Your task to perform on an android device: Search for dining sets on article.com Image 0: 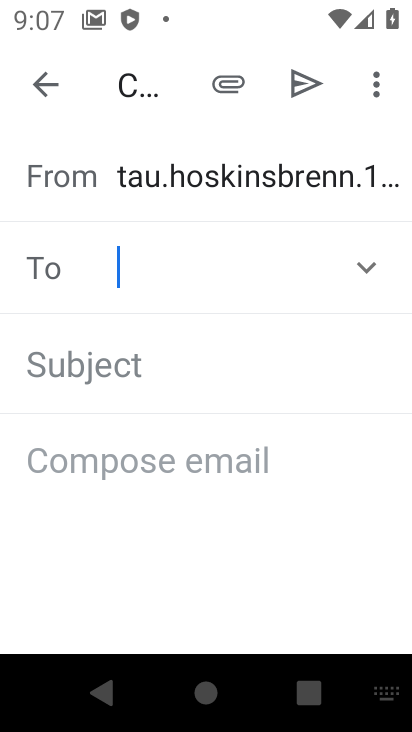
Step 0: press home button
Your task to perform on an android device: Search for dining sets on article.com Image 1: 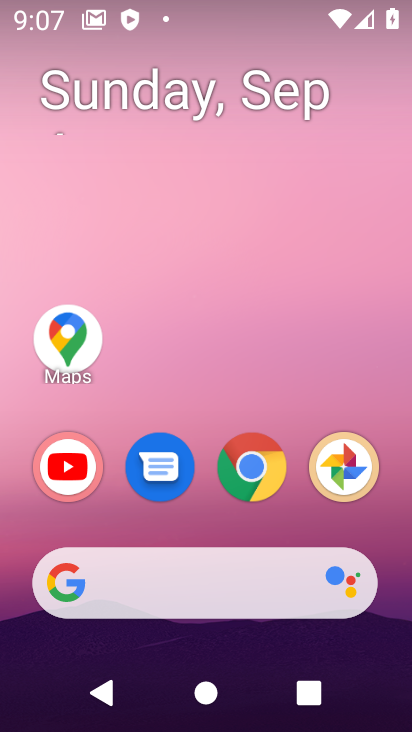
Step 1: click (258, 473)
Your task to perform on an android device: Search for dining sets on article.com Image 2: 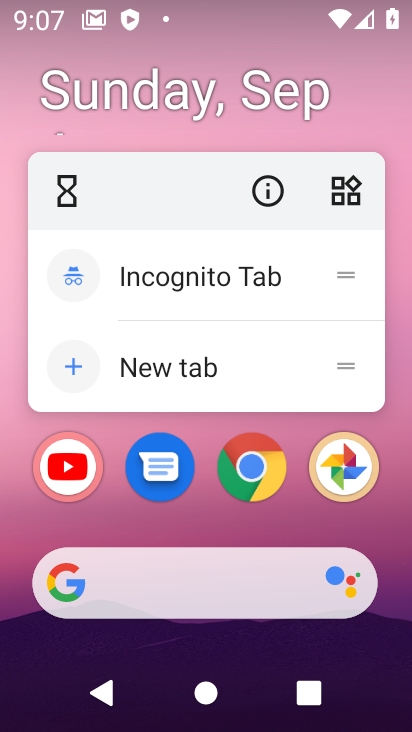
Step 2: click (248, 482)
Your task to perform on an android device: Search for dining sets on article.com Image 3: 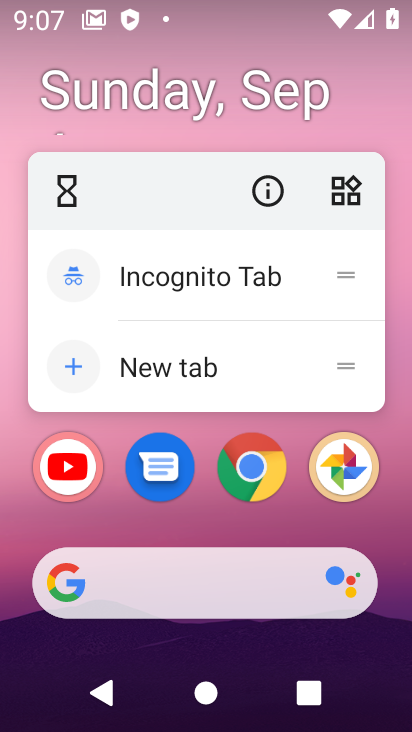
Step 3: click (242, 483)
Your task to perform on an android device: Search for dining sets on article.com Image 4: 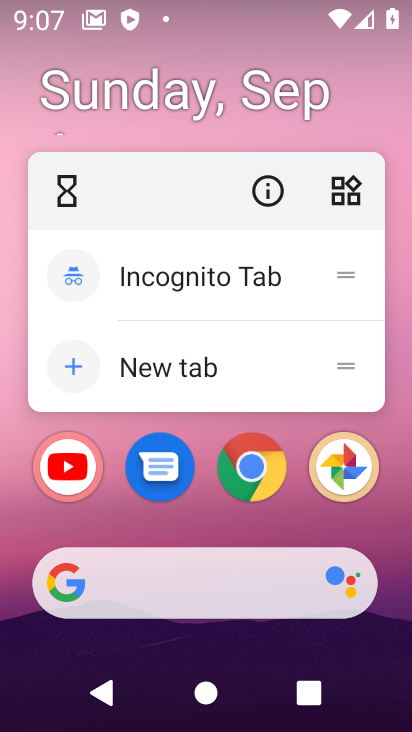
Step 4: click (248, 455)
Your task to perform on an android device: Search for dining sets on article.com Image 5: 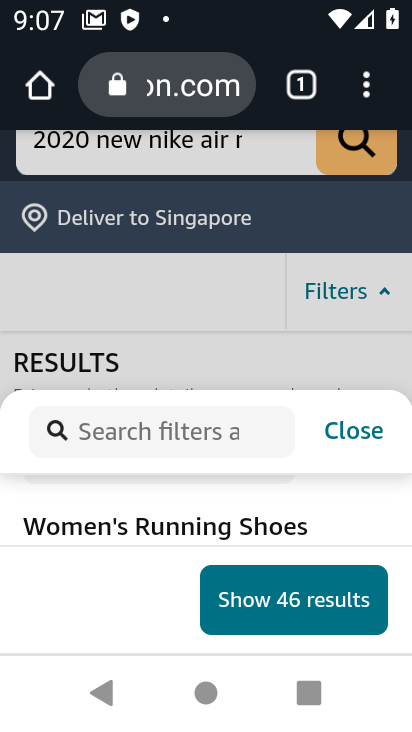
Step 5: click (160, 71)
Your task to perform on an android device: Search for dining sets on article.com Image 6: 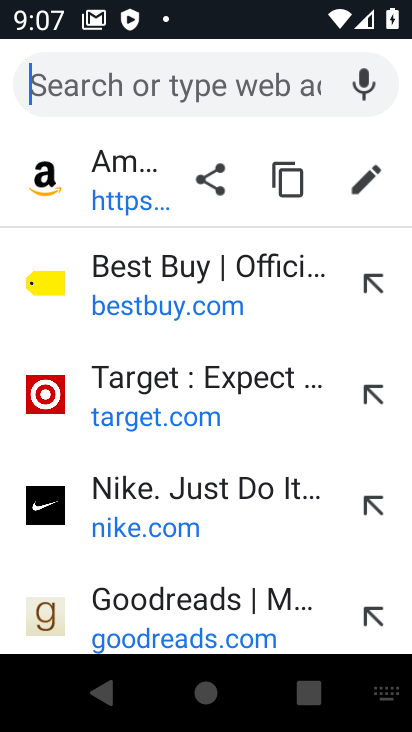
Step 6: type "article.com"
Your task to perform on an android device: Search for dining sets on article.com Image 7: 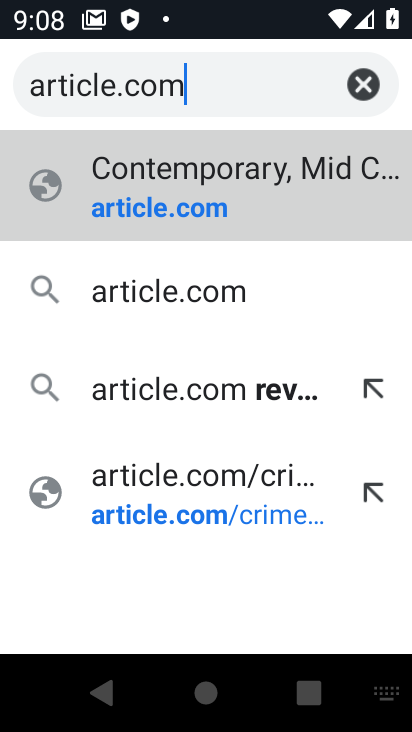
Step 7: click (200, 504)
Your task to perform on an android device: Search for dining sets on article.com Image 8: 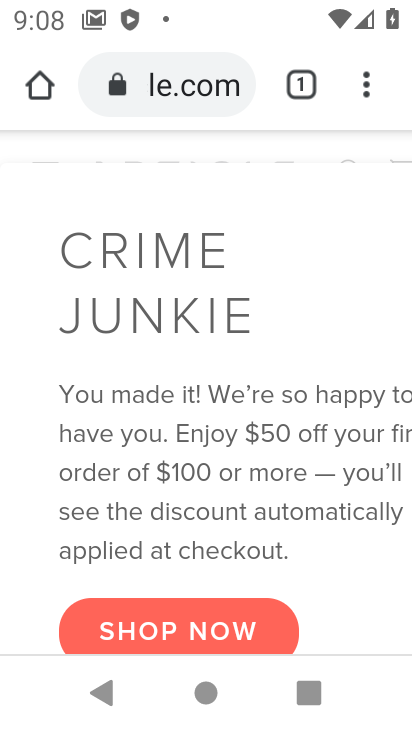
Step 8: drag from (365, 578) to (353, 170)
Your task to perform on an android device: Search for dining sets on article.com Image 9: 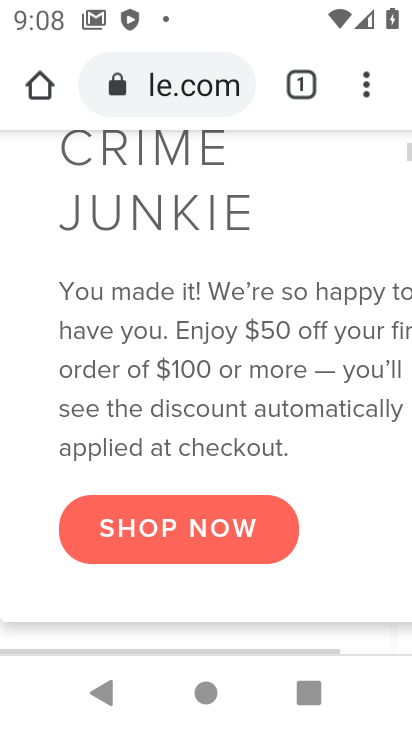
Step 9: drag from (342, 551) to (297, 290)
Your task to perform on an android device: Search for dining sets on article.com Image 10: 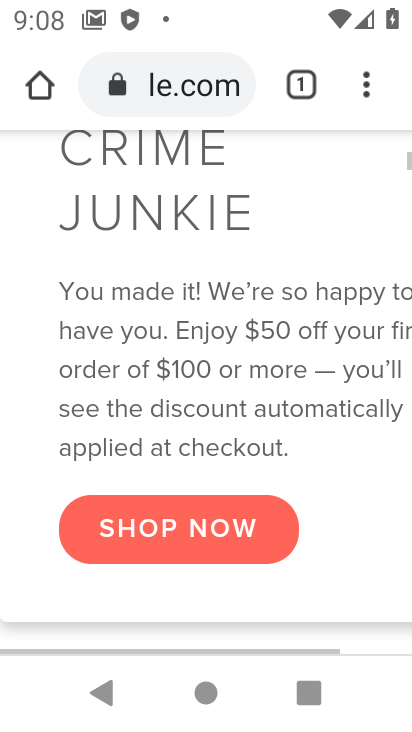
Step 10: click (200, 525)
Your task to perform on an android device: Search for dining sets on article.com Image 11: 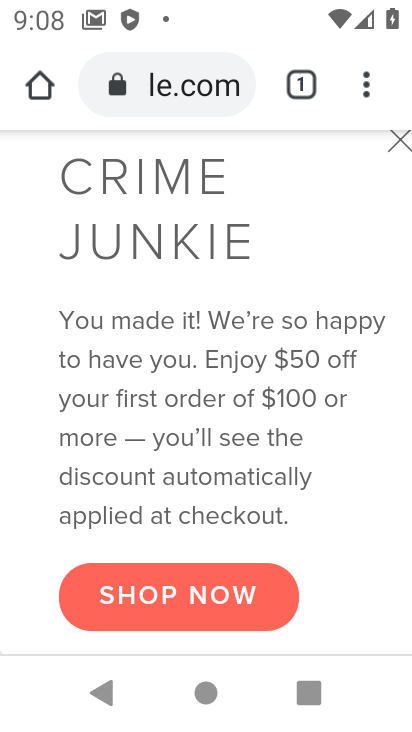
Step 11: drag from (373, 395) to (368, 144)
Your task to perform on an android device: Search for dining sets on article.com Image 12: 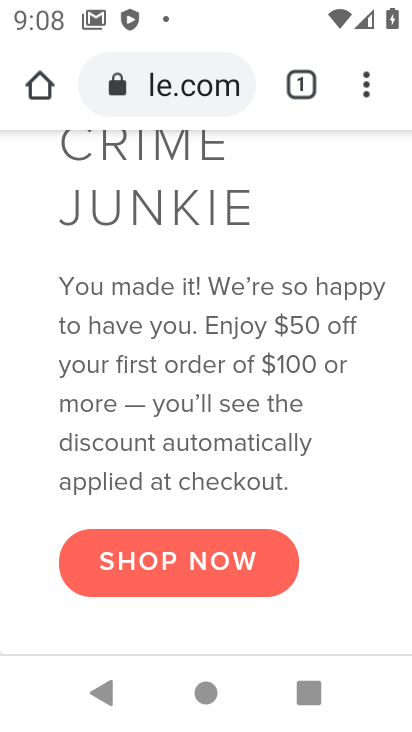
Step 12: drag from (333, 550) to (387, 103)
Your task to perform on an android device: Search for dining sets on article.com Image 13: 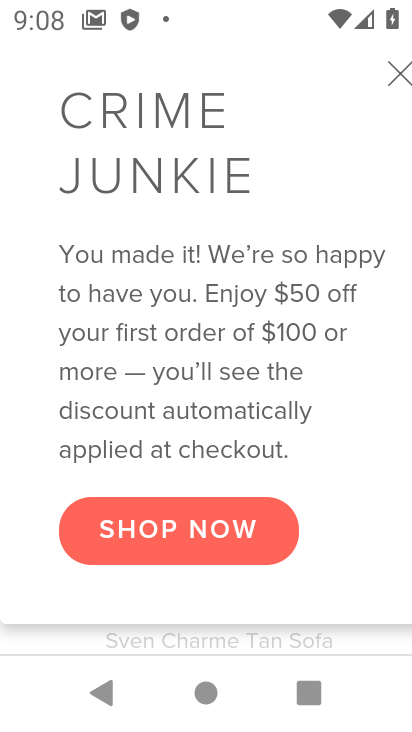
Step 13: drag from (277, 280) to (303, 593)
Your task to perform on an android device: Search for dining sets on article.com Image 14: 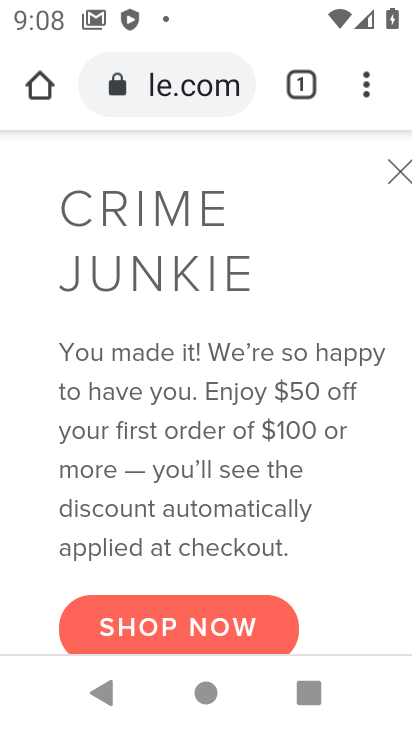
Step 14: click (398, 170)
Your task to perform on an android device: Search for dining sets on article.com Image 15: 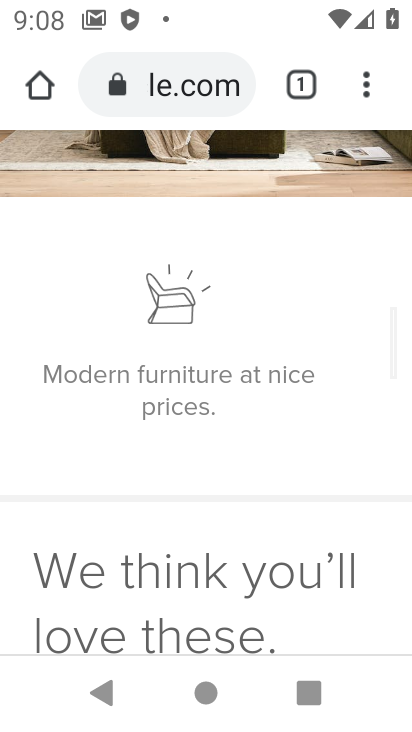
Step 15: click (339, 167)
Your task to perform on an android device: Search for dining sets on article.com Image 16: 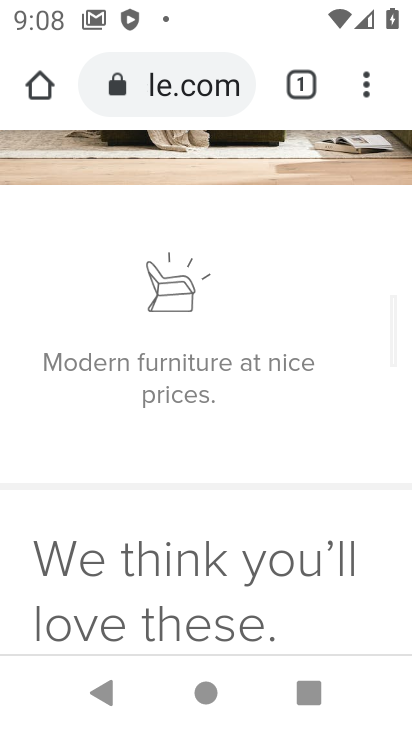
Step 16: drag from (303, 443) to (301, 176)
Your task to perform on an android device: Search for dining sets on article.com Image 17: 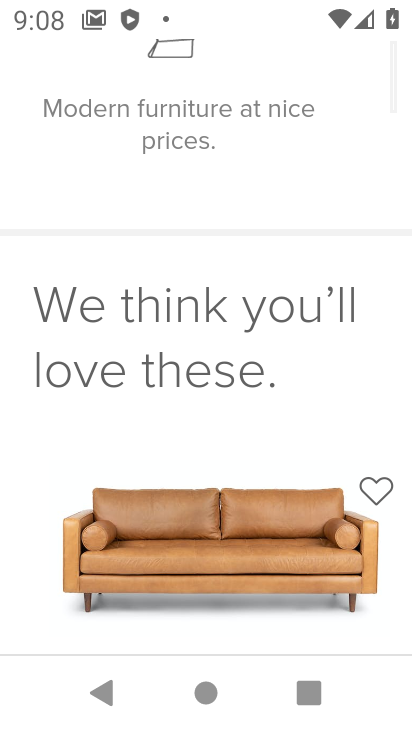
Step 17: drag from (393, 140) to (377, 656)
Your task to perform on an android device: Search for dining sets on article.com Image 18: 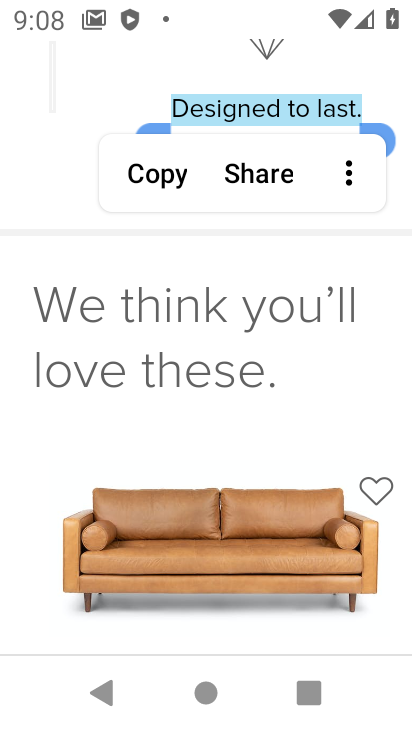
Step 18: drag from (314, 184) to (305, 572)
Your task to perform on an android device: Search for dining sets on article.com Image 19: 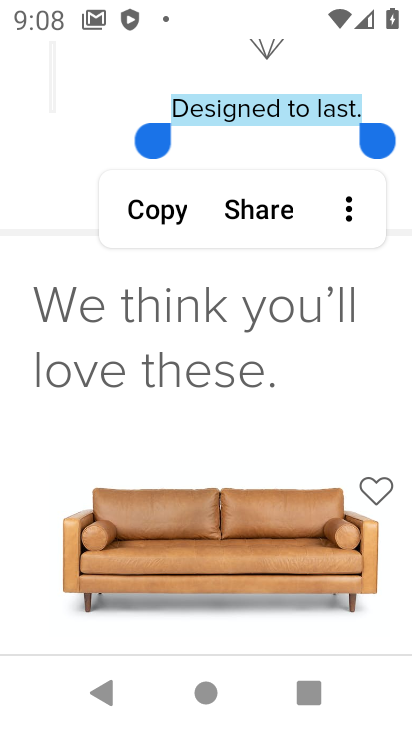
Step 19: click (340, 373)
Your task to perform on an android device: Search for dining sets on article.com Image 20: 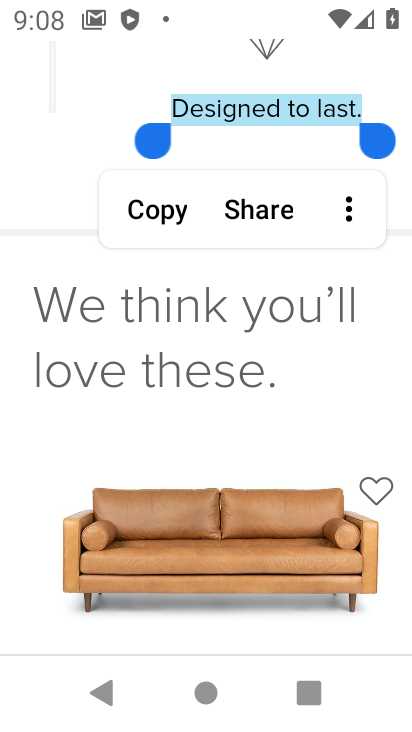
Step 20: click (376, 270)
Your task to perform on an android device: Search for dining sets on article.com Image 21: 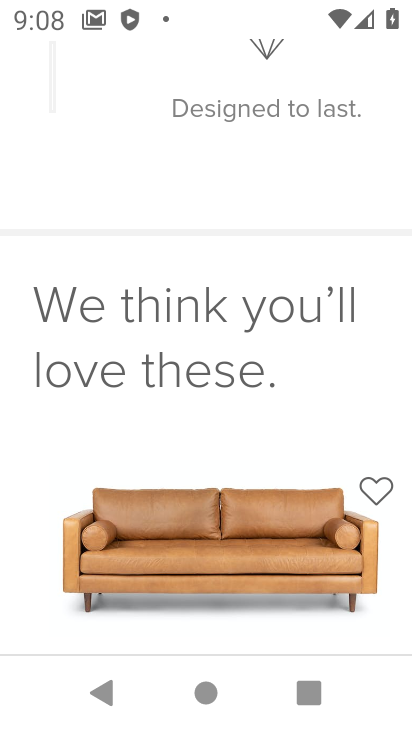
Step 21: drag from (377, 544) to (355, 619)
Your task to perform on an android device: Search for dining sets on article.com Image 22: 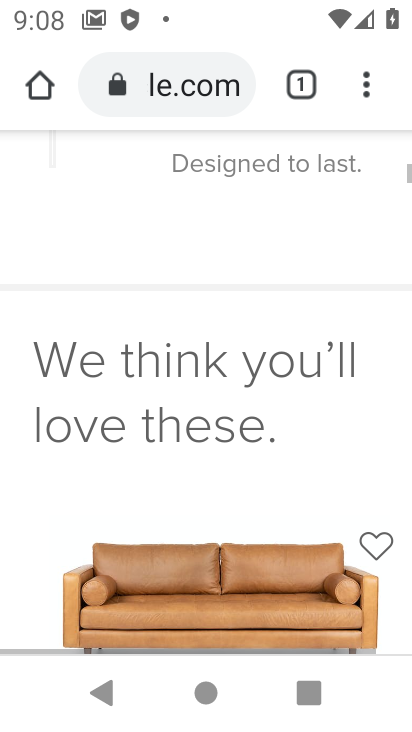
Step 22: drag from (346, 304) to (333, 657)
Your task to perform on an android device: Search for dining sets on article.com Image 23: 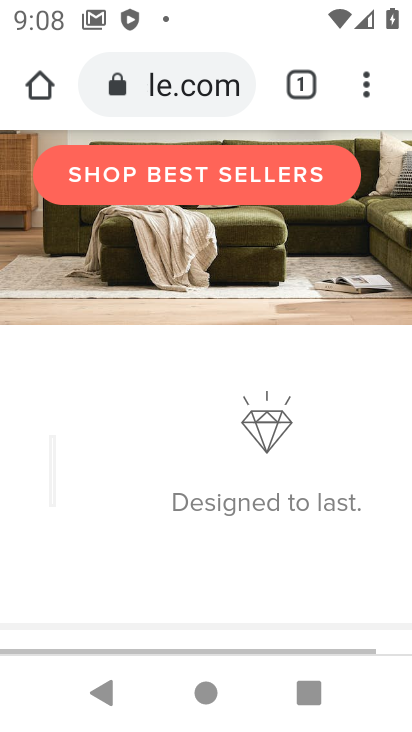
Step 23: drag from (294, 338) to (309, 702)
Your task to perform on an android device: Search for dining sets on article.com Image 24: 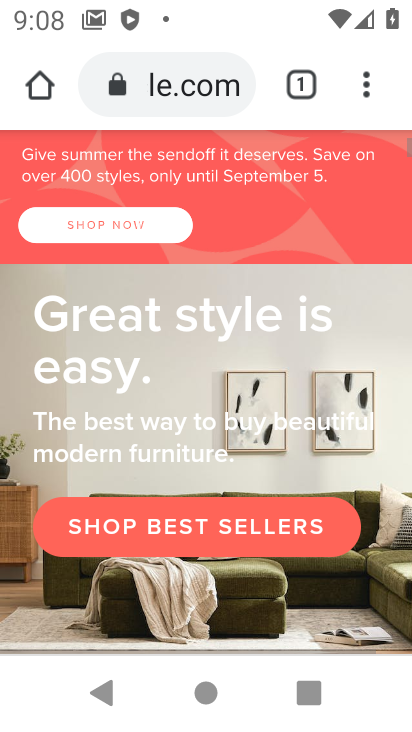
Step 24: drag from (316, 371) to (311, 691)
Your task to perform on an android device: Search for dining sets on article.com Image 25: 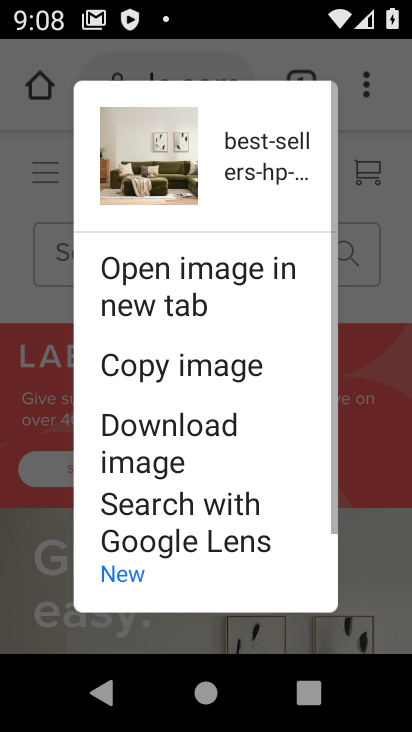
Step 25: click (378, 353)
Your task to perform on an android device: Search for dining sets on article.com Image 26: 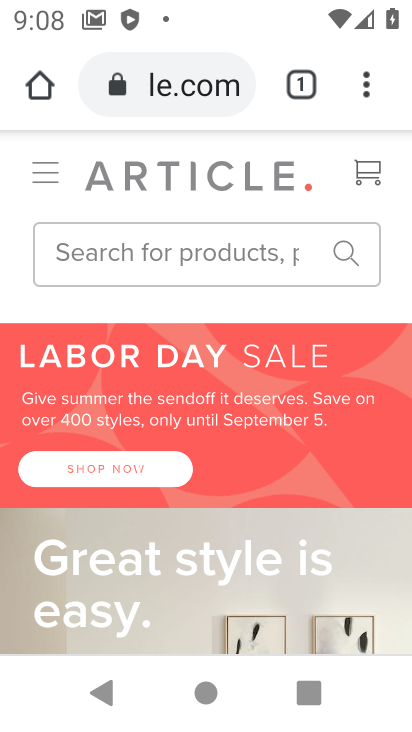
Step 26: click (241, 250)
Your task to perform on an android device: Search for dining sets on article.com Image 27: 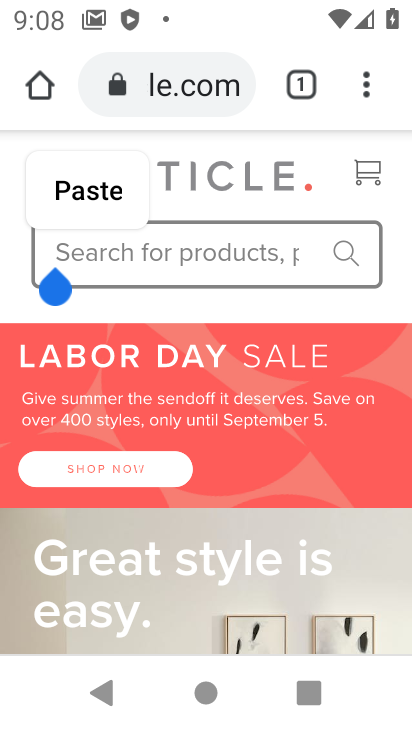
Step 27: type "diniing sets"
Your task to perform on an android device: Search for dining sets on article.com Image 28: 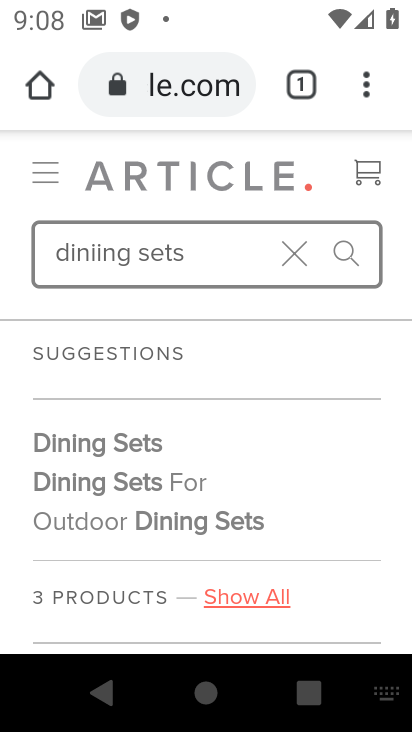
Step 28: click (97, 439)
Your task to perform on an android device: Search for dining sets on article.com Image 29: 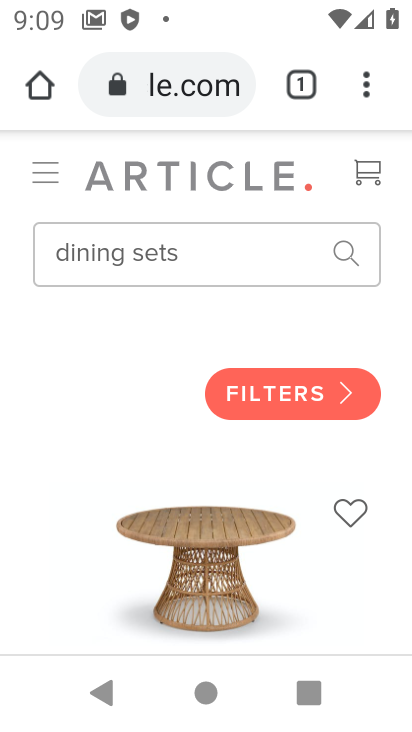
Step 29: drag from (409, 483) to (391, 425)
Your task to perform on an android device: Search for dining sets on article.com Image 30: 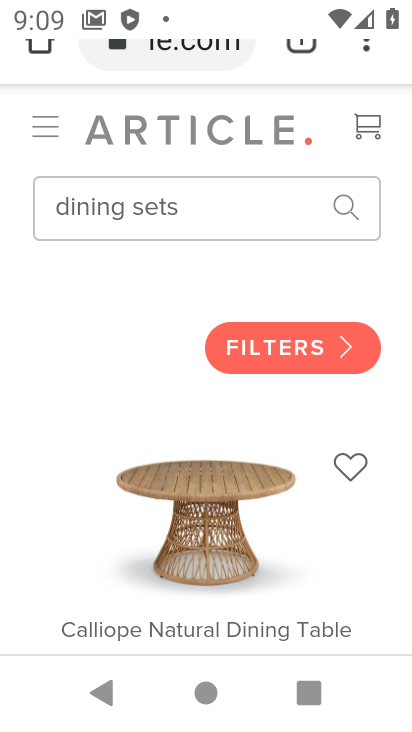
Step 30: drag from (335, 503) to (317, 305)
Your task to perform on an android device: Search for dining sets on article.com Image 31: 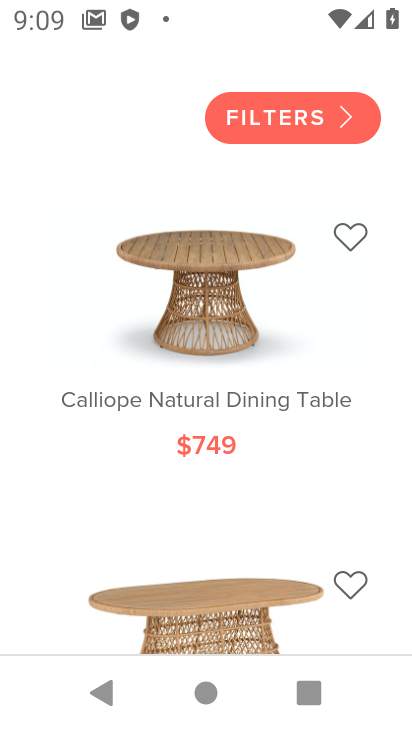
Step 31: drag from (258, 451) to (182, 201)
Your task to perform on an android device: Search for dining sets on article.com Image 32: 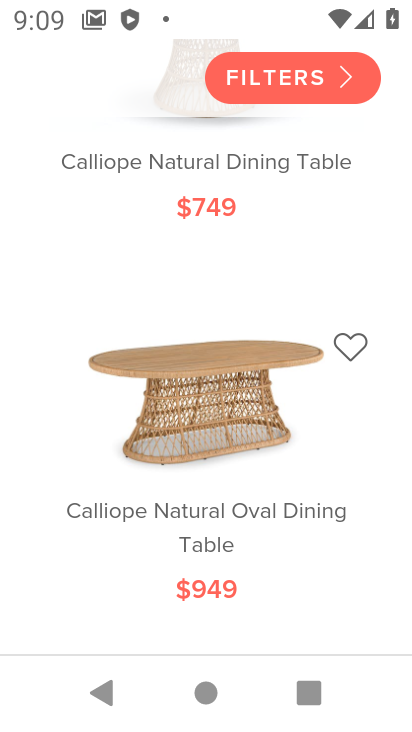
Step 32: drag from (289, 474) to (267, 227)
Your task to perform on an android device: Search for dining sets on article.com Image 33: 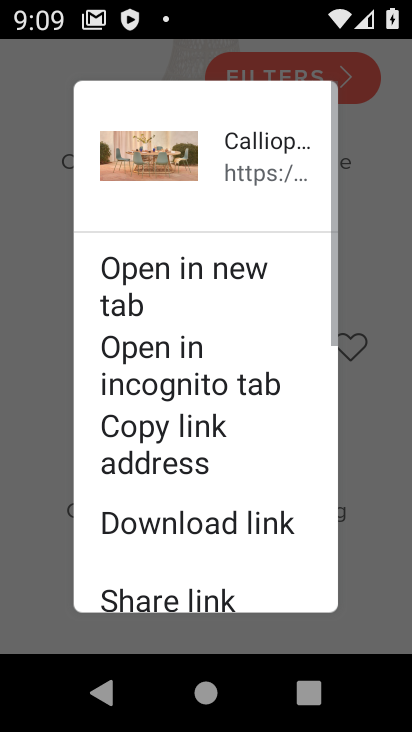
Step 33: click (394, 435)
Your task to perform on an android device: Search for dining sets on article.com Image 34: 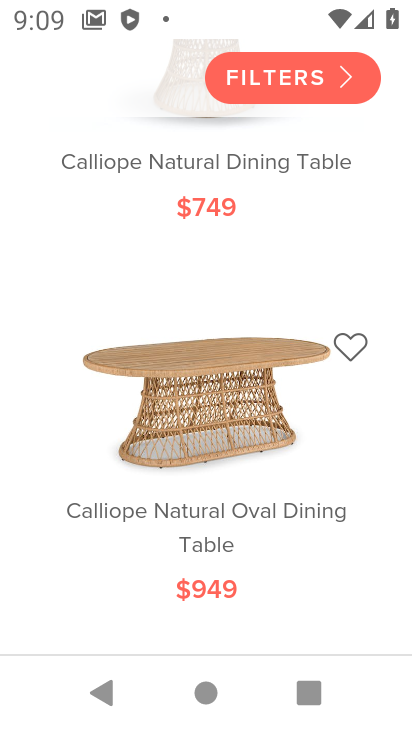
Step 34: drag from (370, 493) to (363, 250)
Your task to perform on an android device: Search for dining sets on article.com Image 35: 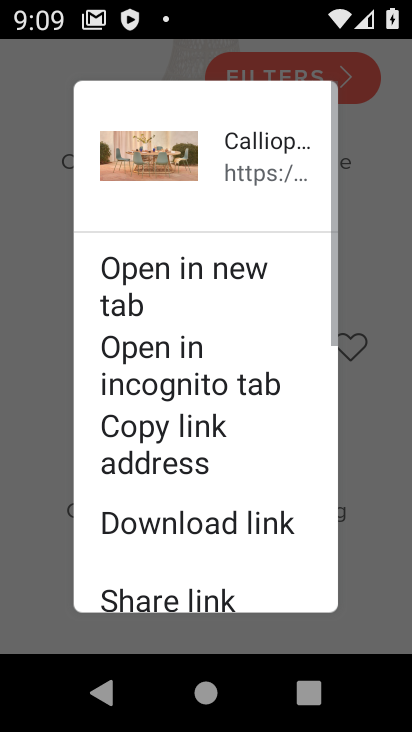
Step 35: click (359, 483)
Your task to perform on an android device: Search for dining sets on article.com Image 36: 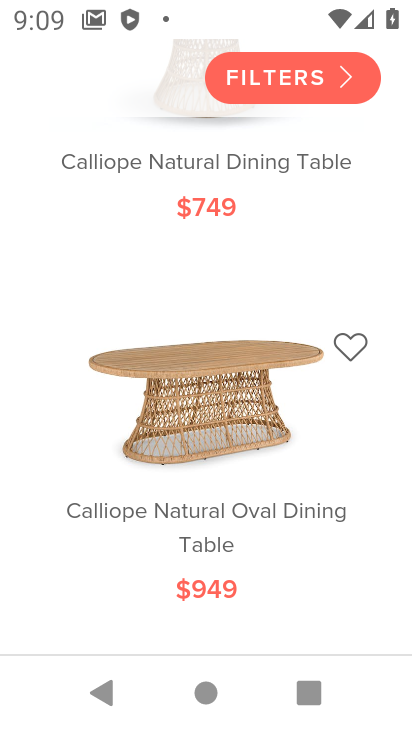
Step 36: drag from (379, 489) to (357, 260)
Your task to perform on an android device: Search for dining sets on article.com Image 37: 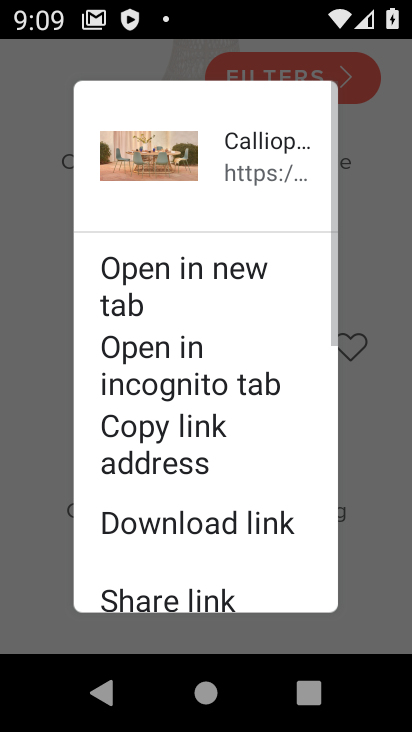
Step 37: click (390, 446)
Your task to perform on an android device: Search for dining sets on article.com Image 38: 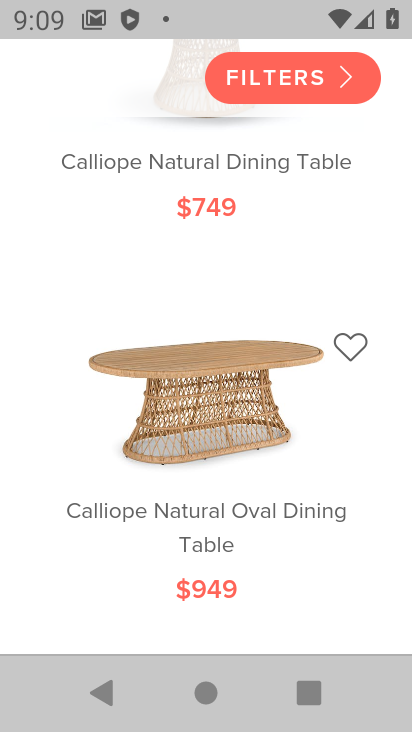
Step 38: task complete